Your task to perform on an android device: empty trash in the gmail app Image 0: 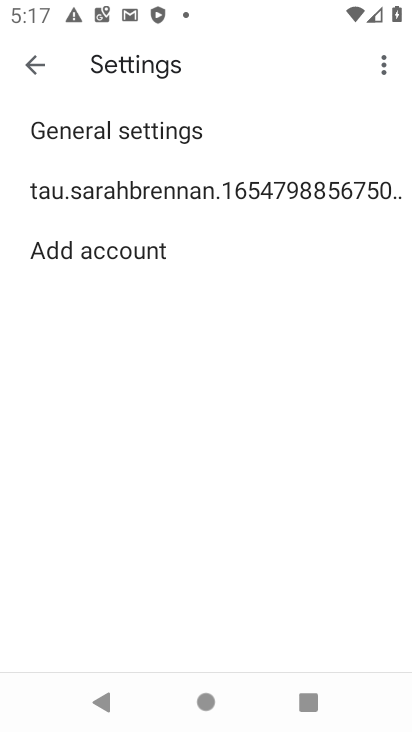
Step 0: press home button
Your task to perform on an android device: empty trash in the gmail app Image 1: 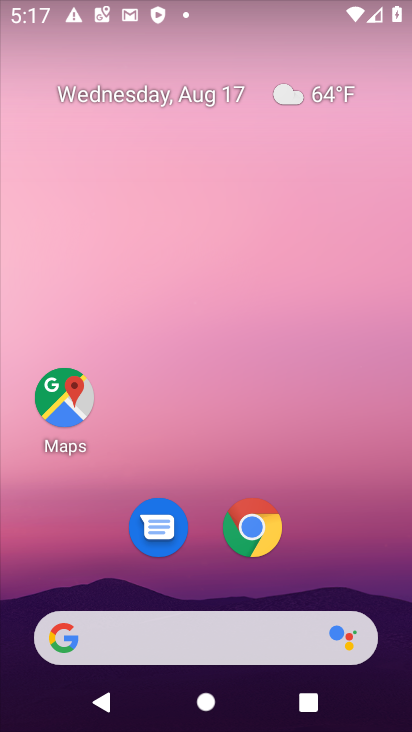
Step 1: drag from (170, 616) to (118, 224)
Your task to perform on an android device: empty trash in the gmail app Image 2: 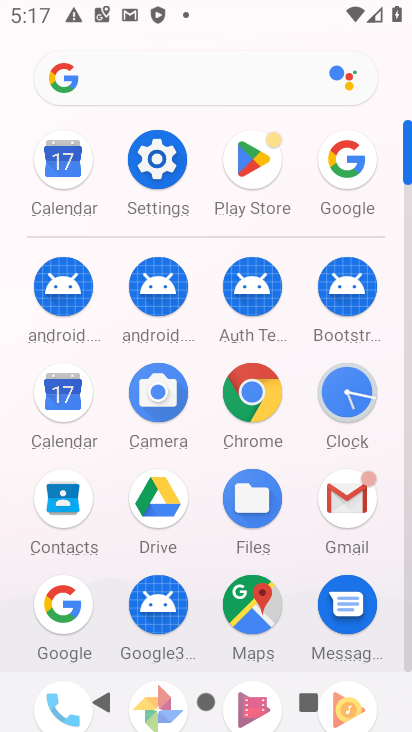
Step 2: click (372, 492)
Your task to perform on an android device: empty trash in the gmail app Image 3: 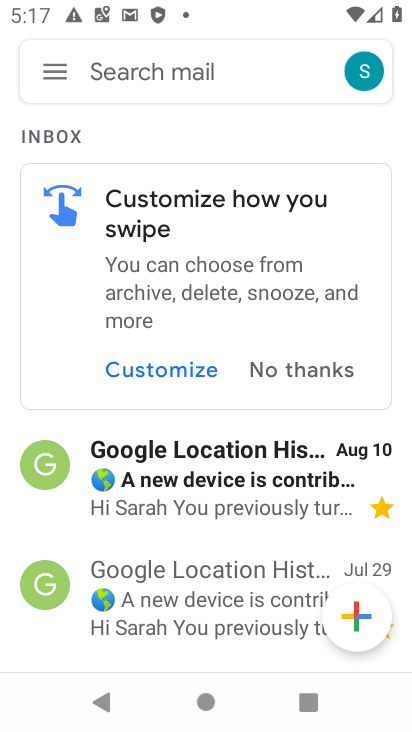
Step 3: click (49, 67)
Your task to perform on an android device: empty trash in the gmail app Image 4: 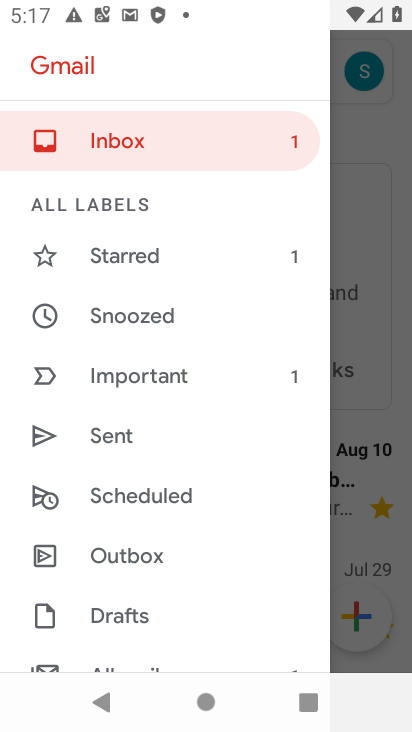
Step 4: drag from (116, 621) to (108, 220)
Your task to perform on an android device: empty trash in the gmail app Image 5: 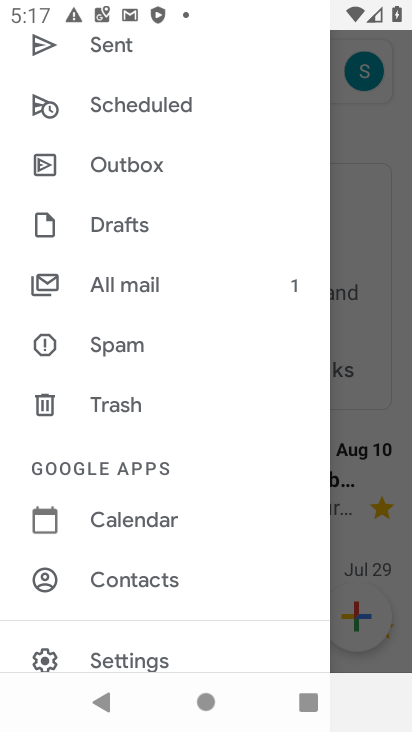
Step 5: click (114, 394)
Your task to perform on an android device: empty trash in the gmail app Image 6: 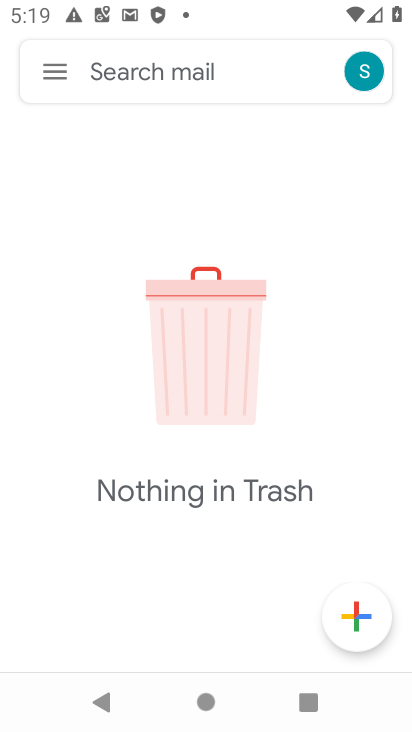
Step 6: task complete